Your task to perform on an android device: Go to accessibility settings Image 0: 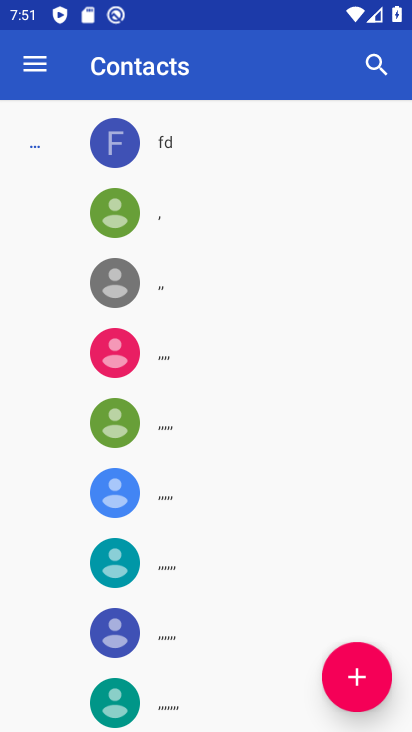
Step 0: press home button
Your task to perform on an android device: Go to accessibility settings Image 1: 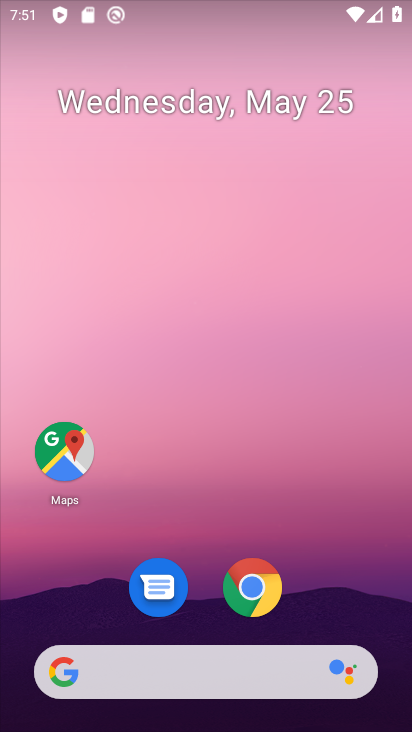
Step 1: drag from (315, 608) to (288, 125)
Your task to perform on an android device: Go to accessibility settings Image 2: 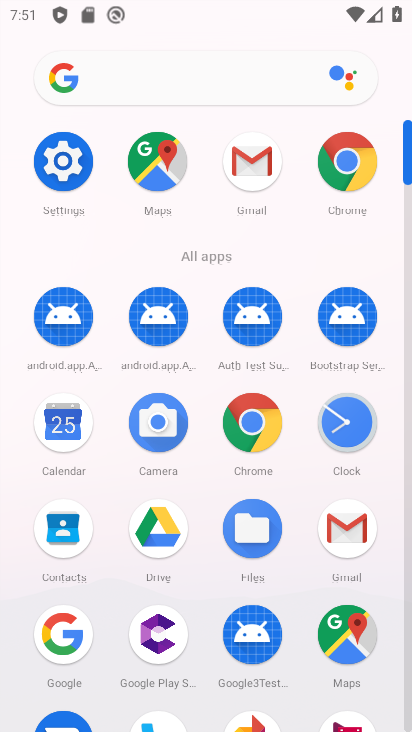
Step 2: click (68, 157)
Your task to perform on an android device: Go to accessibility settings Image 3: 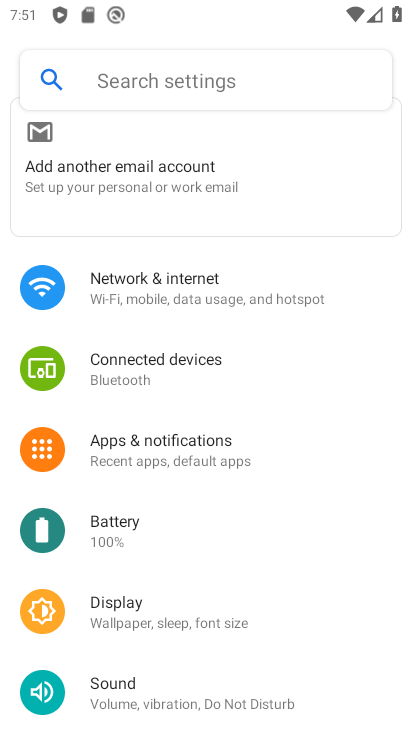
Step 3: drag from (276, 649) to (275, 233)
Your task to perform on an android device: Go to accessibility settings Image 4: 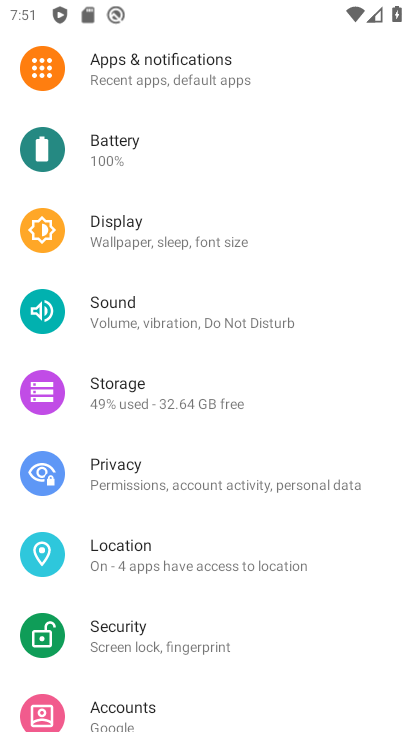
Step 4: drag from (219, 673) to (227, 303)
Your task to perform on an android device: Go to accessibility settings Image 5: 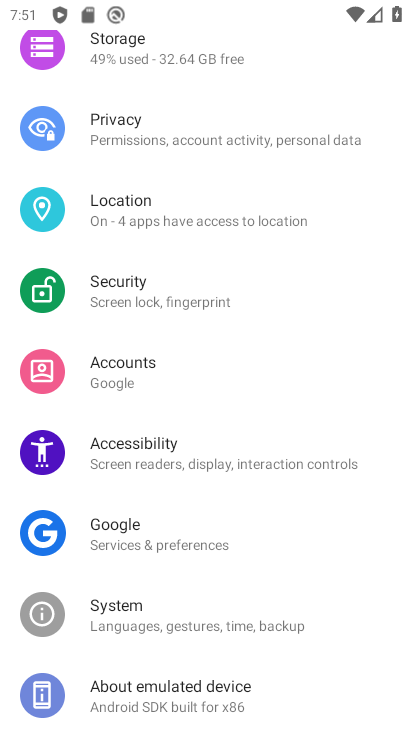
Step 5: click (119, 453)
Your task to perform on an android device: Go to accessibility settings Image 6: 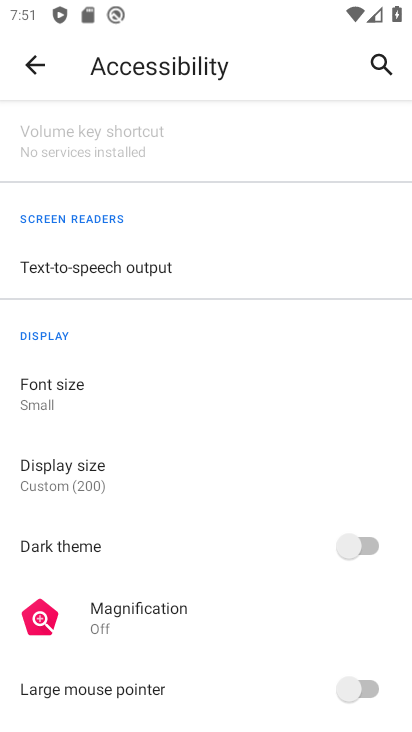
Step 6: task complete